Your task to perform on an android device: Go to accessibility settings Image 0: 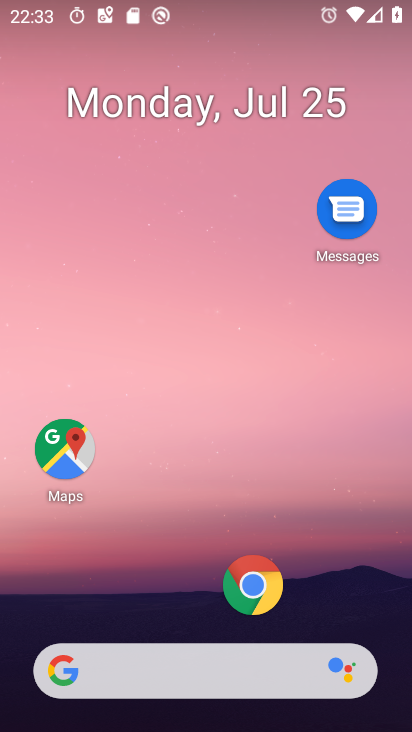
Step 0: press home button
Your task to perform on an android device: Go to accessibility settings Image 1: 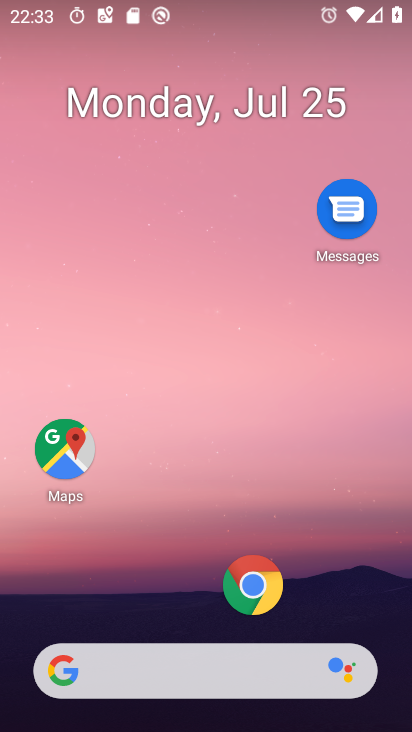
Step 1: drag from (189, 682) to (238, 162)
Your task to perform on an android device: Go to accessibility settings Image 2: 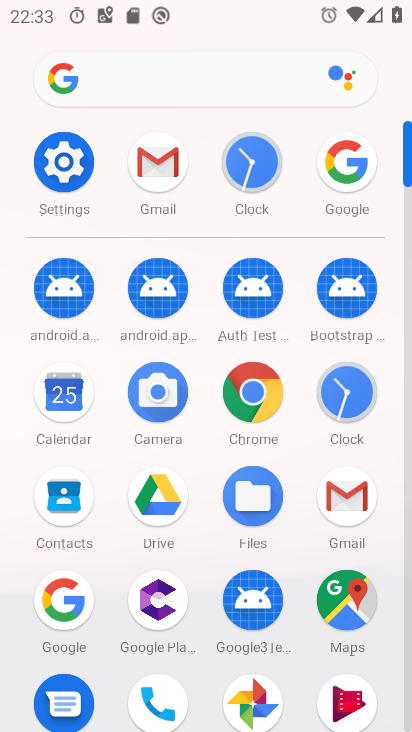
Step 2: click (59, 161)
Your task to perform on an android device: Go to accessibility settings Image 3: 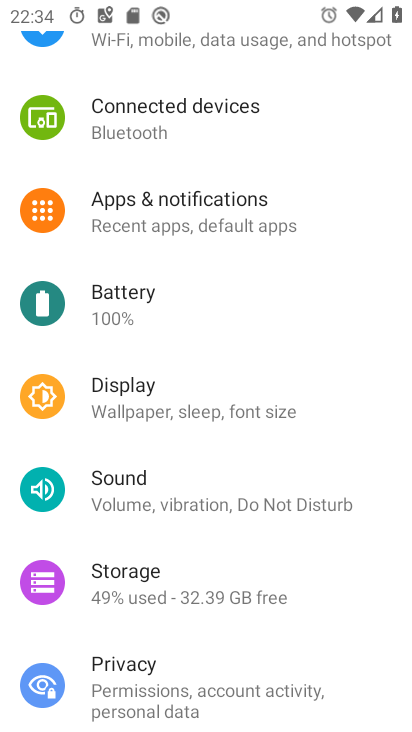
Step 3: drag from (252, 666) to (287, 126)
Your task to perform on an android device: Go to accessibility settings Image 4: 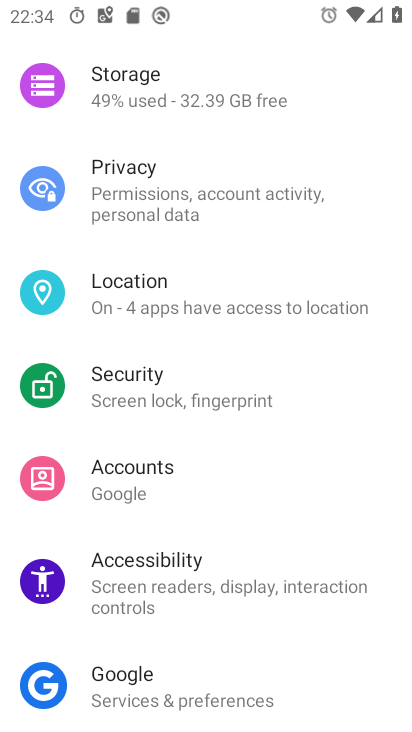
Step 4: click (173, 560)
Your task to perform on an android device: Go to accessibility settings Image 5: 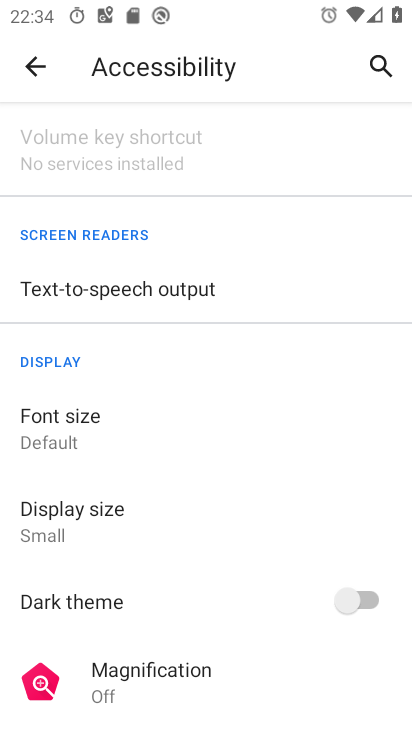
Step 5: task complete